Your task to perform on an android device: Open network settings Image 0: 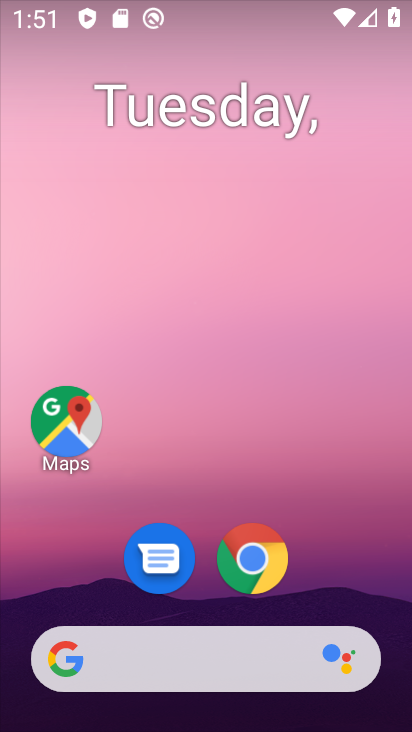
Step 0: drag from (197, 553) to (240, 27)
Your task to perform on an android device: Open network settings Image 1: 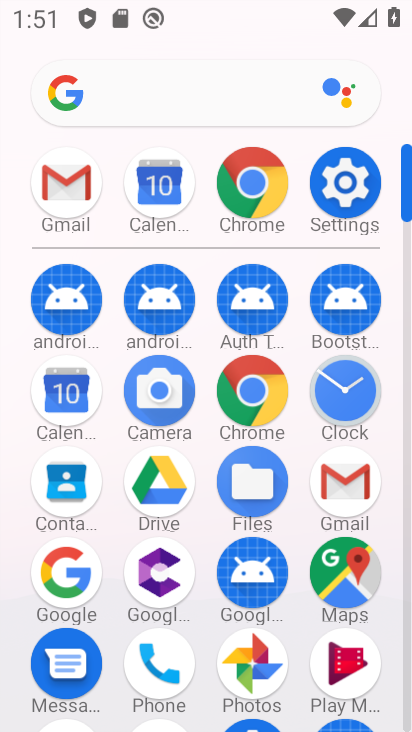
Step 1: click (348, 190)
Your task to perform on an android device: Open network settings Image 2: 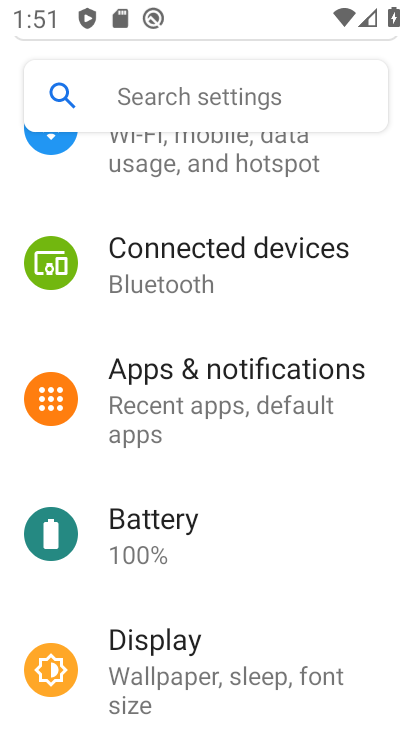
Step 2: drag from (250, 226) to (199, 671)
Your task to perform on an android device: Open network settings Image 3: 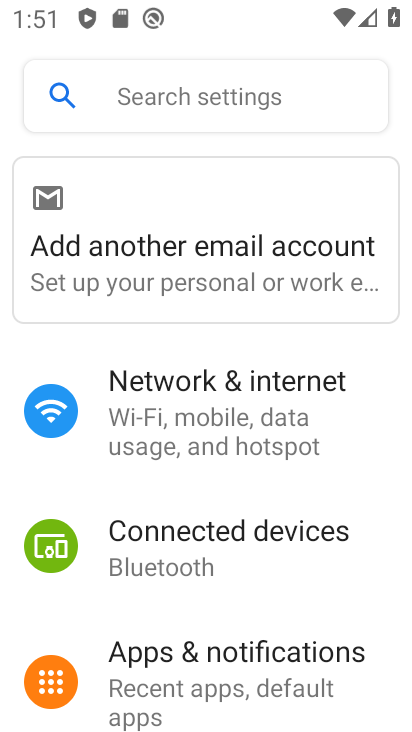
Step 3: click (241, 409)
Your task to perform on an android device: Open network settings Image 4: 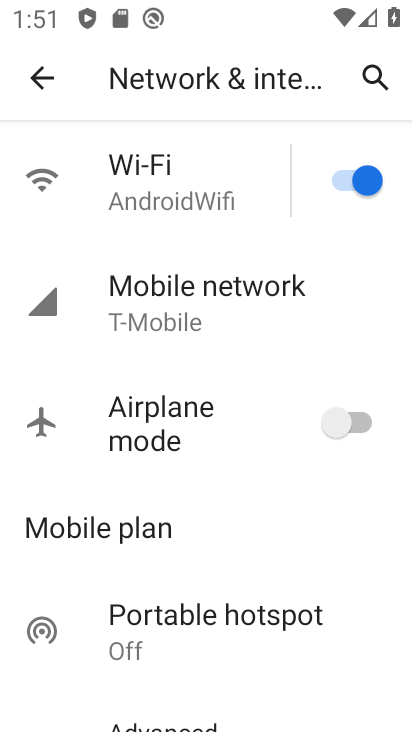
Step 4: task complete